Your task to perform on an android device: toggle priority inbox in the gmail app Image 0: 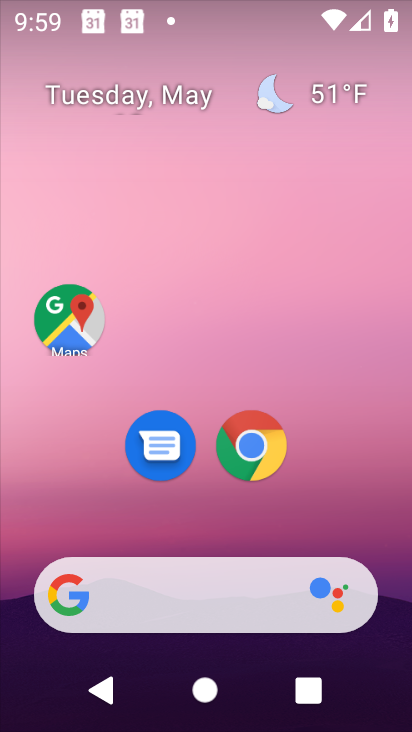
Step 0: drag from (189, 592) to (175, 47)
Your task to perform on an android device: toggle priority inbox in the gmail app Image 1: 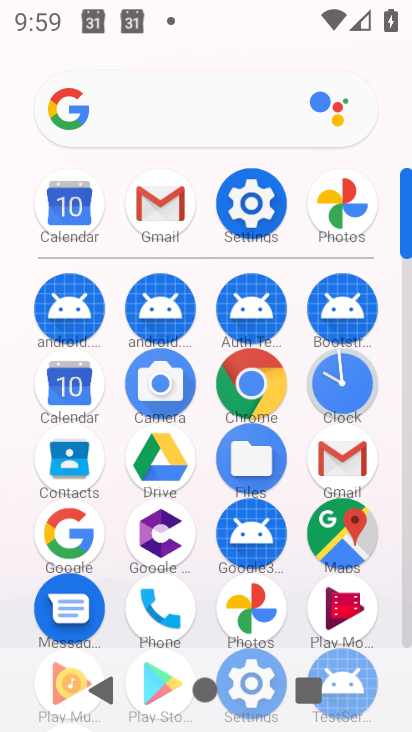
Step 1: click (168, 207)
Your task to perform on an android device: toggle priority inbox in the gmail app Image 2: 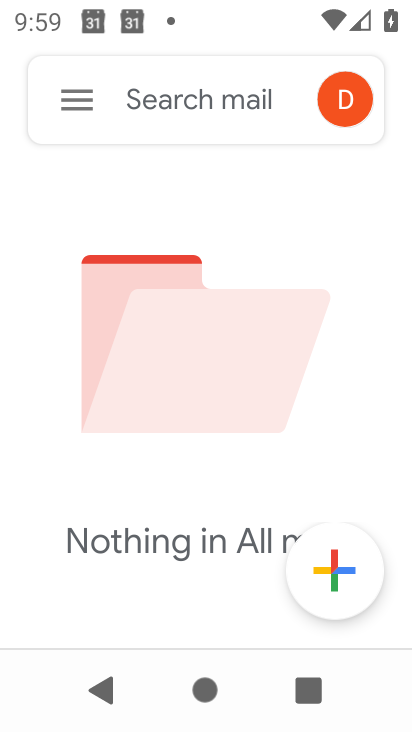
Step 2: click (75, 90)
Your task to perform on an android device: toggle priority inbox in the gmail app Image 3: 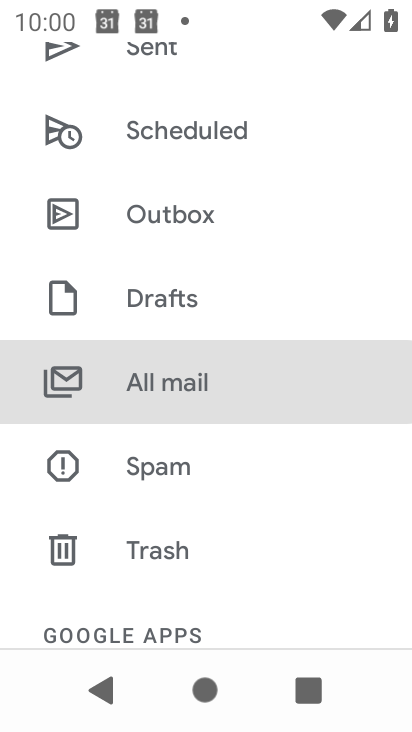
Step 3: drag from (187, 547) to (135, 14)
Your task to perform on an android device: toggle priority inbox in the gmail app Image 4: 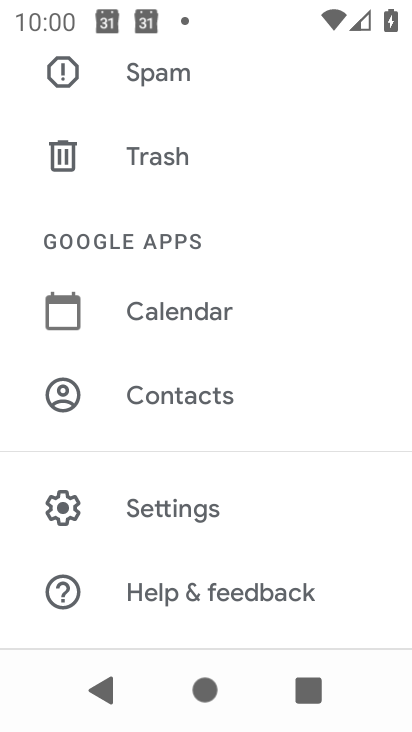
Step 4: click (163, 518)
Your task to perform on an android device: toggle priority inbox in the gmail app Image 5: 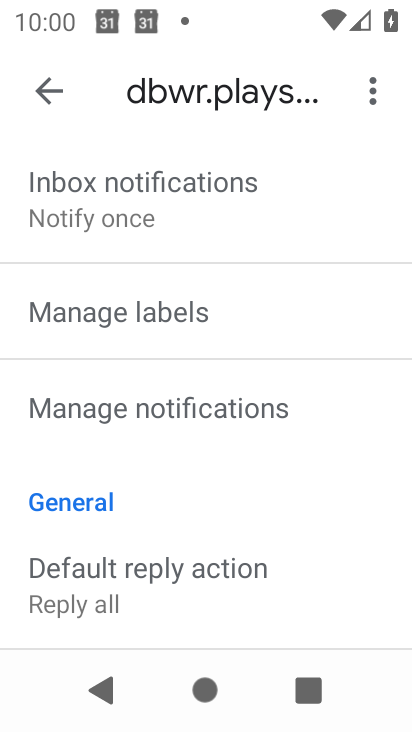
Step 5: drag from (119, 584) to (96, 91)
Your task to perform on an android device: toggle priority inbox in the gmail app Image 6: 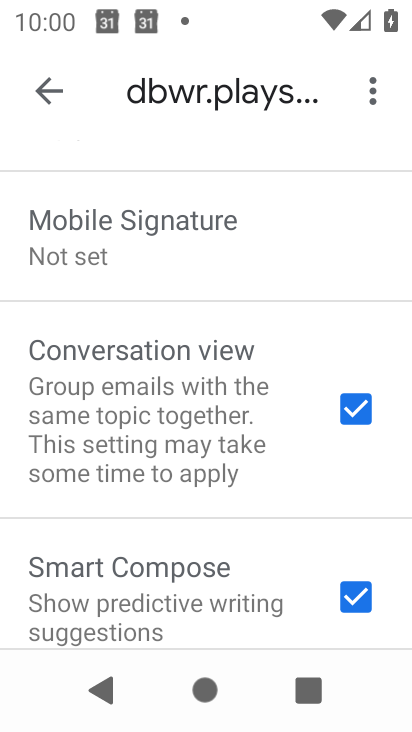
Step 6: drag from (123, 192) to (129, 560)
Your task to perform on an android device: toggle priority inbox in the gmail app Image 7: 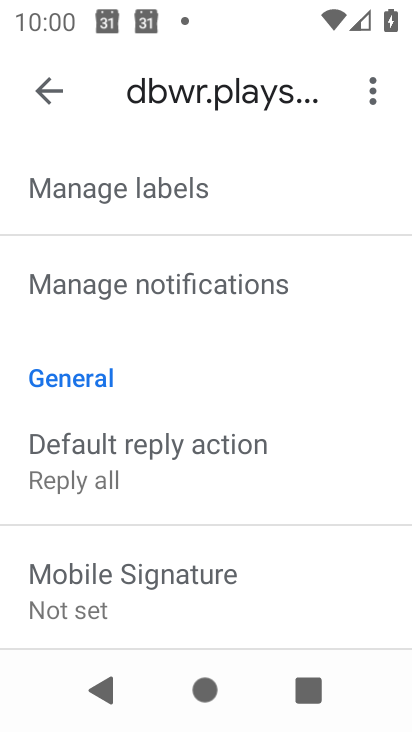
Step 7: drag from (157, 285) to (162, 615)
Your task to perform on an android device: toggle priority inbox in the gmail app Image 8: 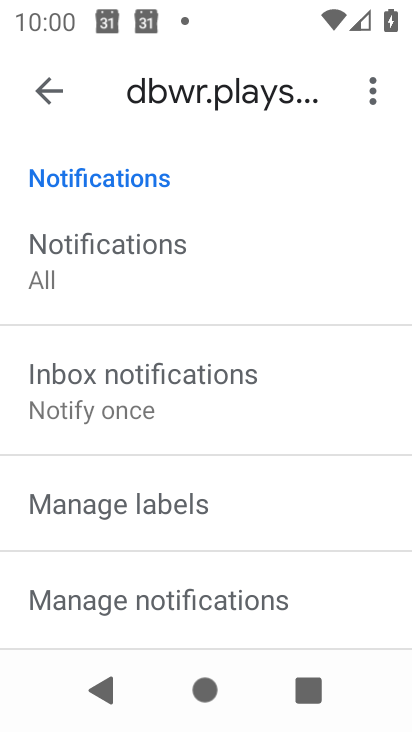
Step 8: drag from (152, 293) to (195, 664)
Your task to perform on an android device: toggle priority inbox in the gmail app Image 9: 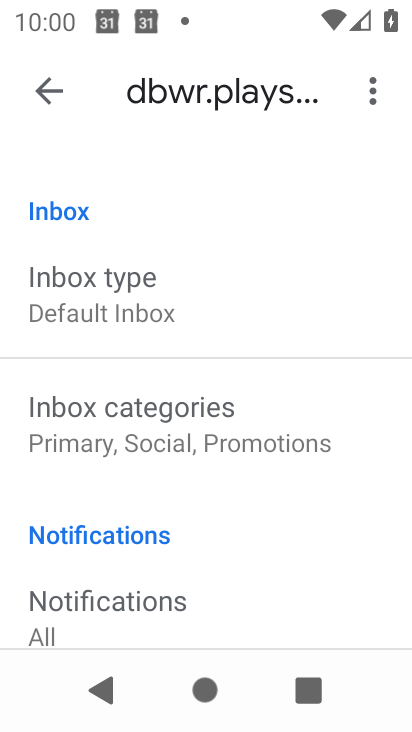
Step 9: click (126, 309)
Your task to perform on an android device: toggle priority inbox in the gmail app Image 10: 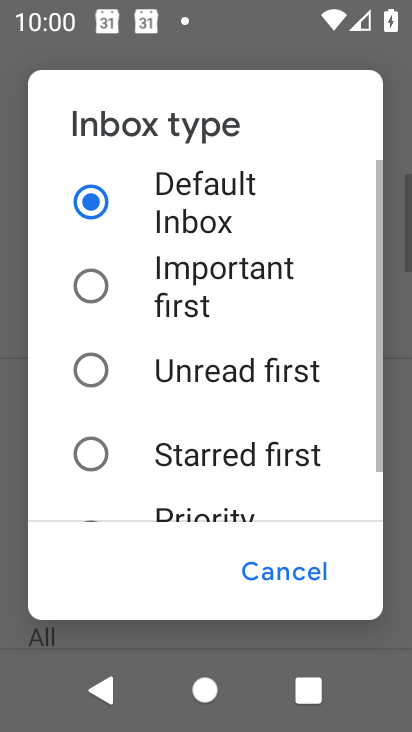
Step 10: drag from (167, 473) to (135, 46)
Your task to perform on an android device: toggle priority inbox in the gmail app Image 11: 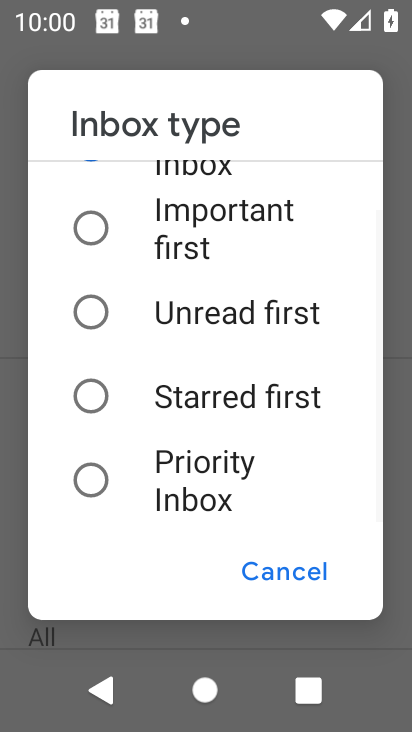
Step 11: click (116, 493)
Your task to perform on an android device: toggle priority inbox in the gmail app Image 12: 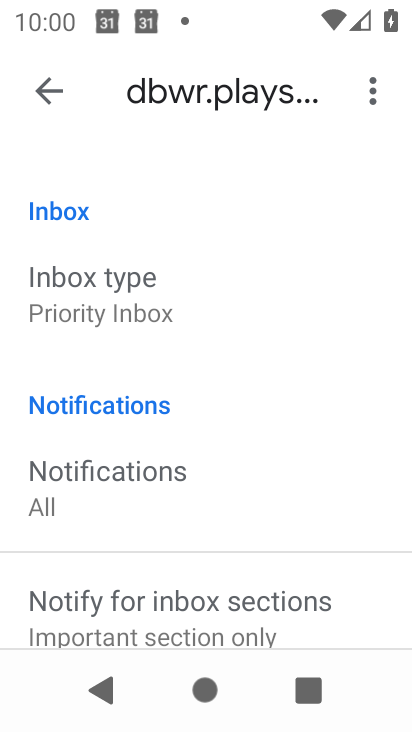
Step 12: task complete